Your task to perform on an android device: turn smart compose on in the gmail app Image 0: 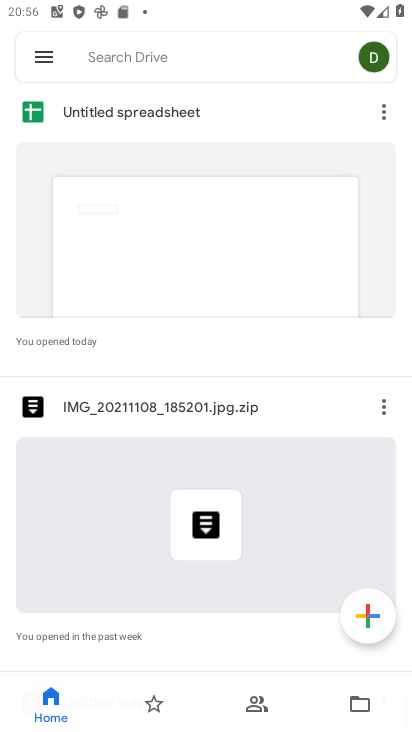
Step 0: press home button
Your task to perform on an android device: turn smart compose on in the gmail app Image 1: 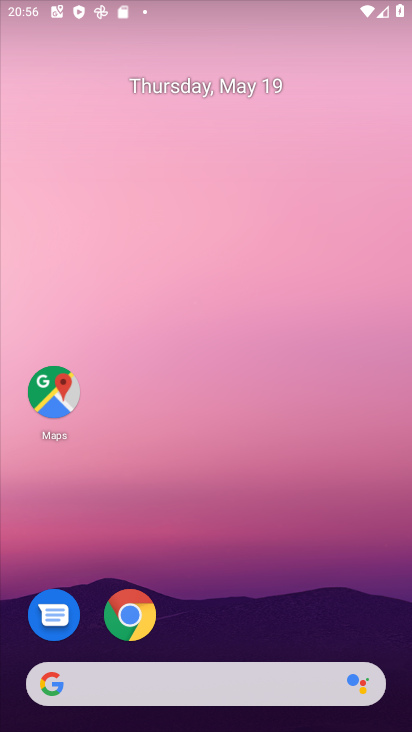
Step 1: drag from (267, 610) to (248, 140)
Your task to perform on an android device: turn smart compose on in the gmail app Image 2: 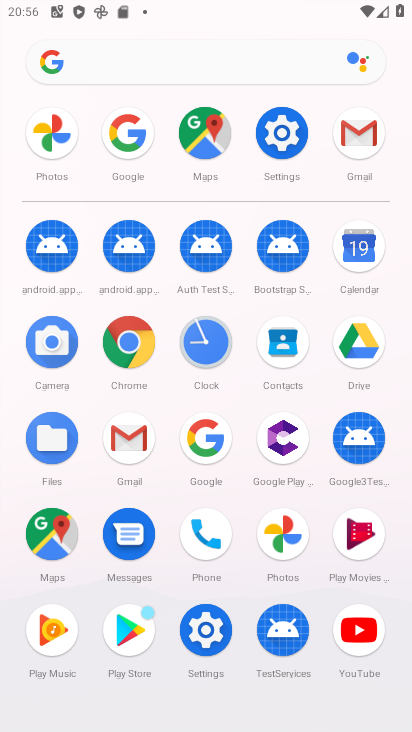
Step 2: click (362, 136)
Your task to perform on an android device: turn smart compose on in the gmail app Image 3: 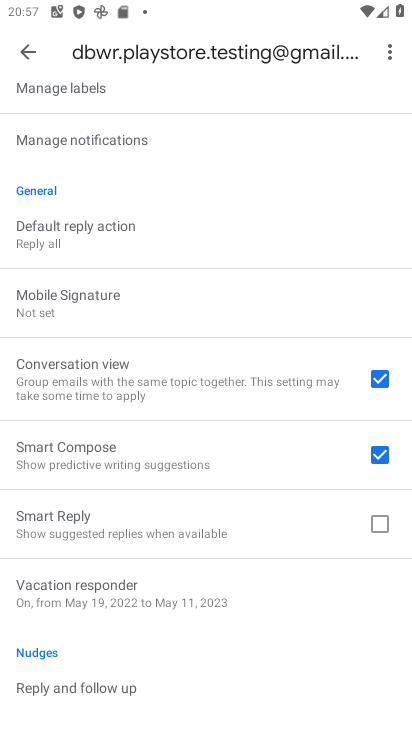
Step 3: task complete